Your task to perform on an android device: Do I have any events today? Image 0: 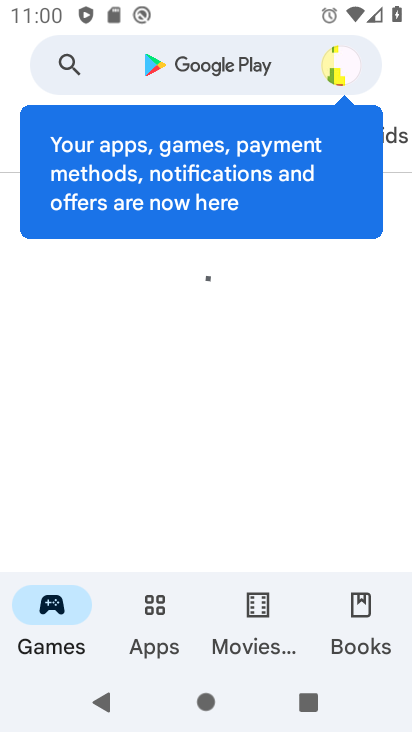
Step 0: press home button
Your task to perform on an android device: Do I have any events today? Image 1: 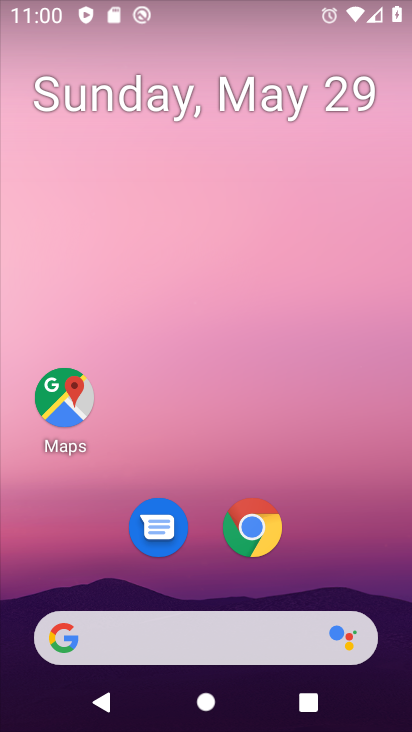
Step 1: click (189, 85)
Your task to perform on an android device: Do I have any events today? Image 2: 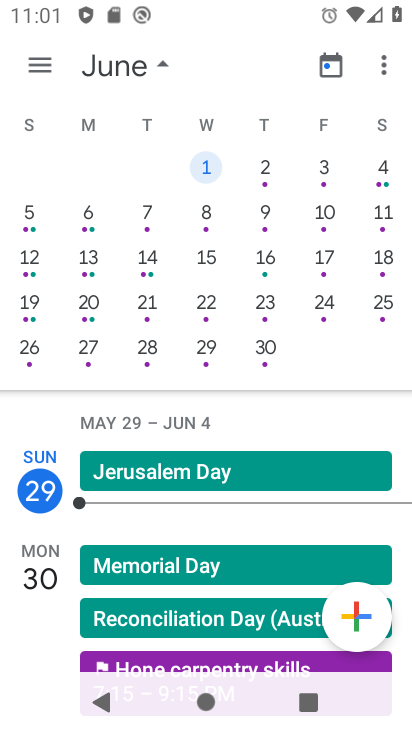
Step 2: click (125, 56)
Your task to perform on an android device: Do I have any events today? Image 3: 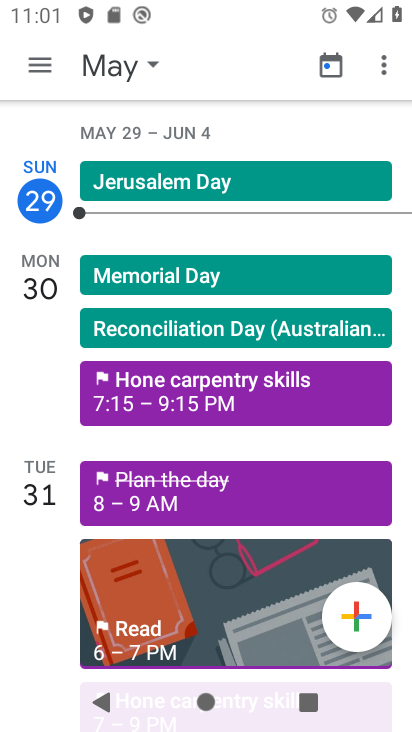
Step 3: task complete